Your task to perform on an android device: set the stopwatch Image 0: 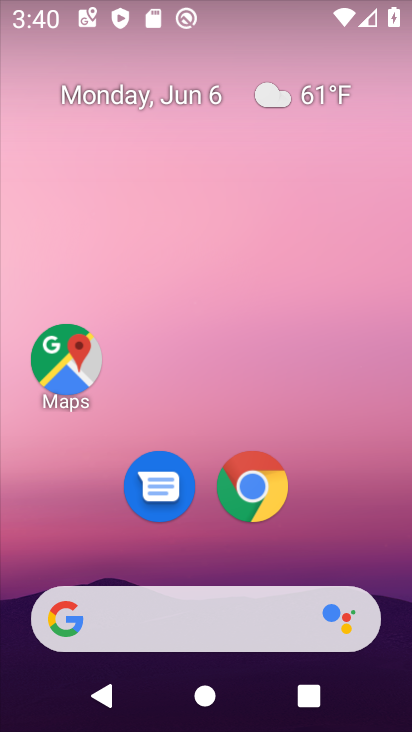
Step 0: drag from (337, 421) to (305, 56)
Your task to perform on an android device: set the stopwatch Image 1: 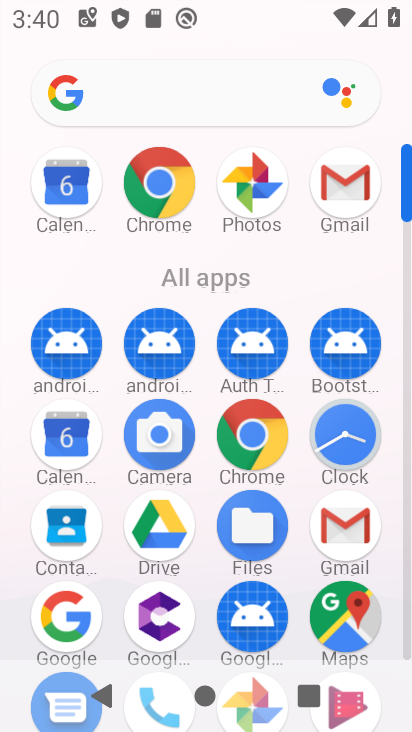
Step 1: drag from (203, 607) to (199, 181)
Your task to perform on an android device: set the stopwatch Image 2: 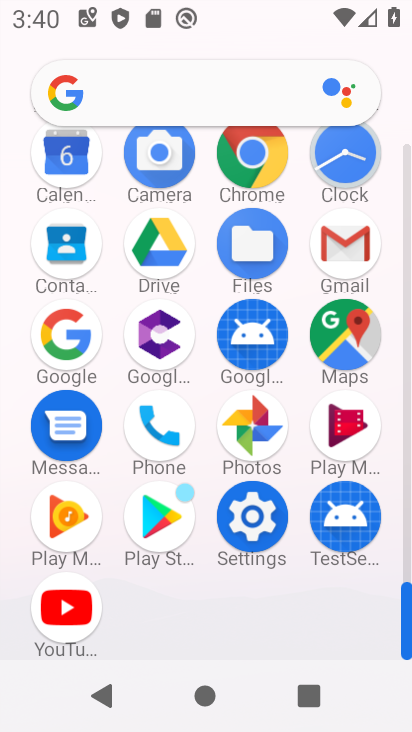
Step 2: click (349, 173)
Your task to perform on an android device: set the stopwatch Image 3: 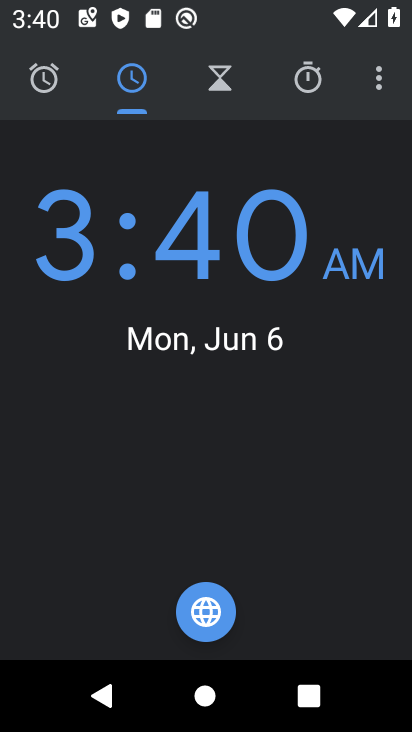
Step 3: click (332, 80)
Your task to perform on an android device: set the stopwatch Image 4: 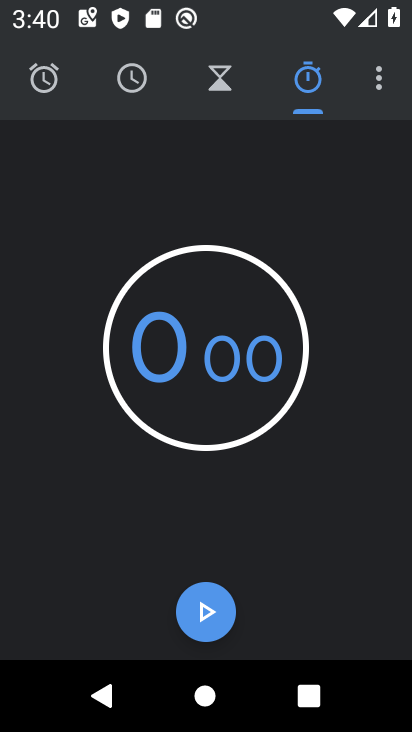
Step 4: click (201, 616)
Your task to perform on an android device: set the stopwatch Image 5: 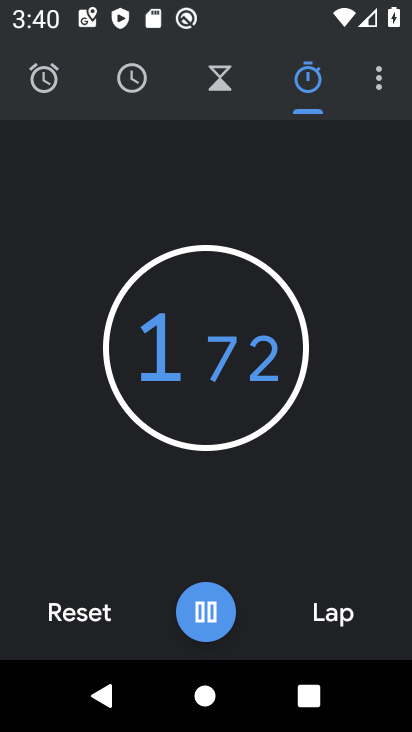
Step 5: click (227, 615)
Your task to perform on an android device: set the stopwatch Image 6: 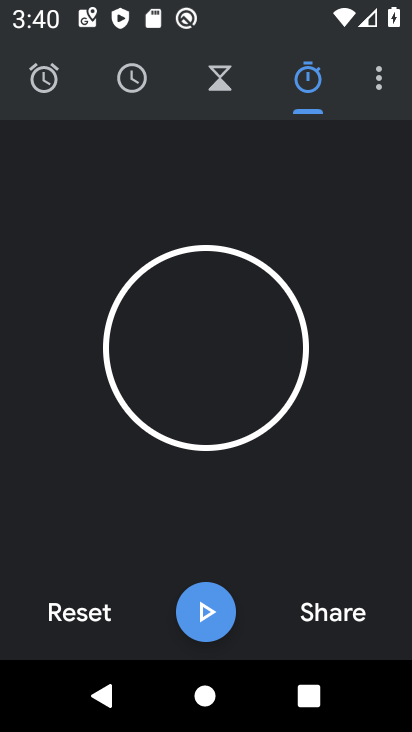
Step 6: task complete